Your task to perform on an android device: open the mobile data screen to see how much data has been used Image 0: 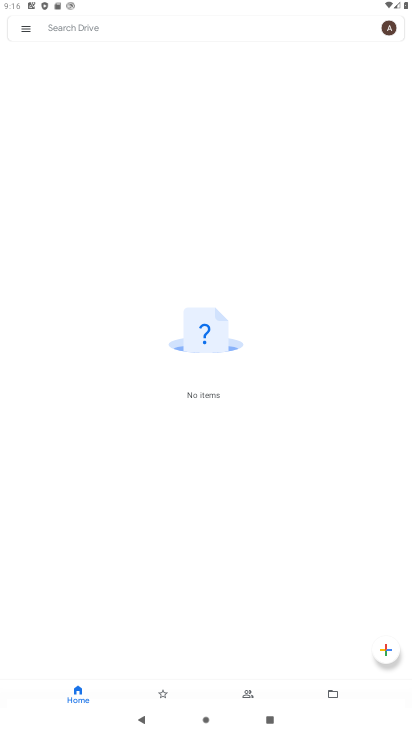
Step 0: press home button
Your task to perform on an android device: open the mobile data screen to see how much data has been used Image 1: 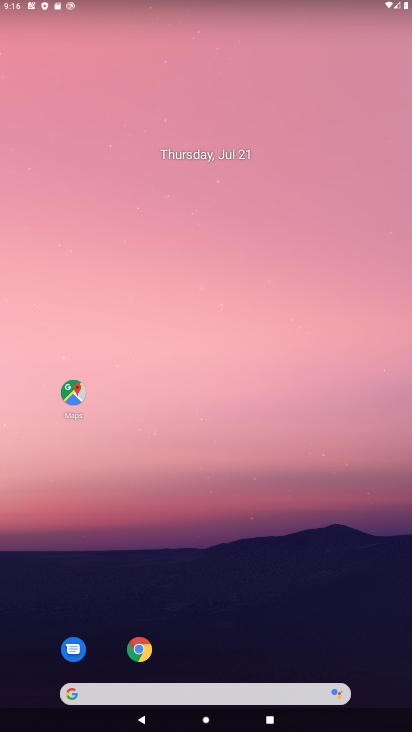
Step 1: drag from (244, 574) to (276, 87)
Your task to perform on an android device: open the mobile data screen to see how much data has been used Image 2: 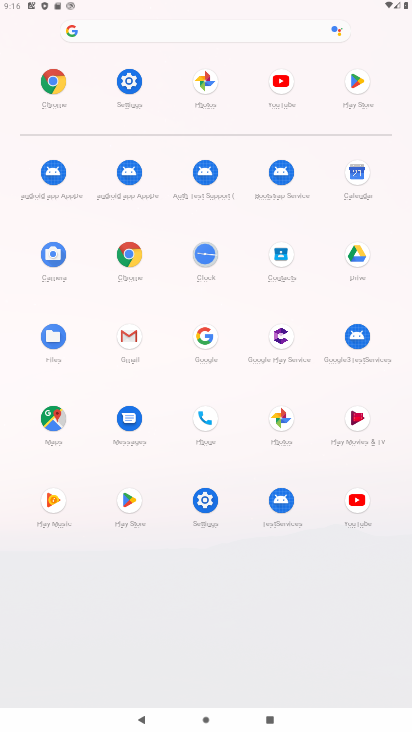
Step 2: click (203, 515)
Your task to perform on an android device: open the mobile data screen to see how much data has been used Image 3: 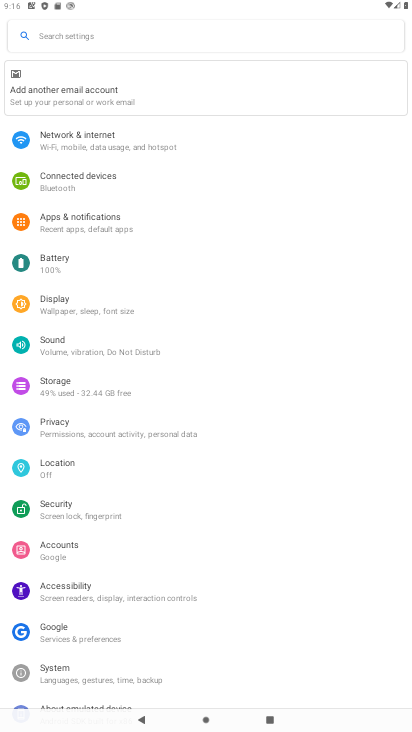
Step 3: click (99, 144)
Your task to perform on an android device: open the mobile data screen to see how much data has been used Image 4: 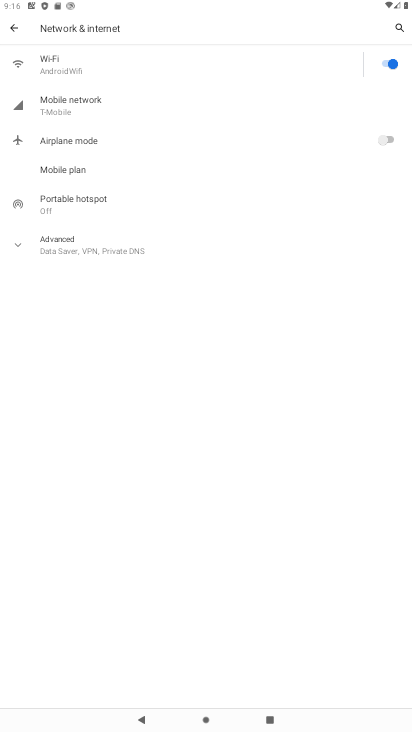
Step 4: click (96, 97)
Your task to perform on an android device: open the mobile data screen to see how much data has been used Image 5: 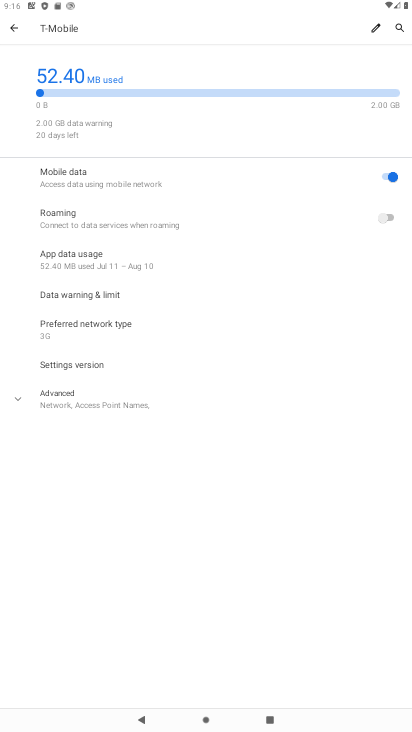
Step 5: click (149, 262)
Your task to perform on an android device: open the mobile data screen to see how much data has been used Image 6: 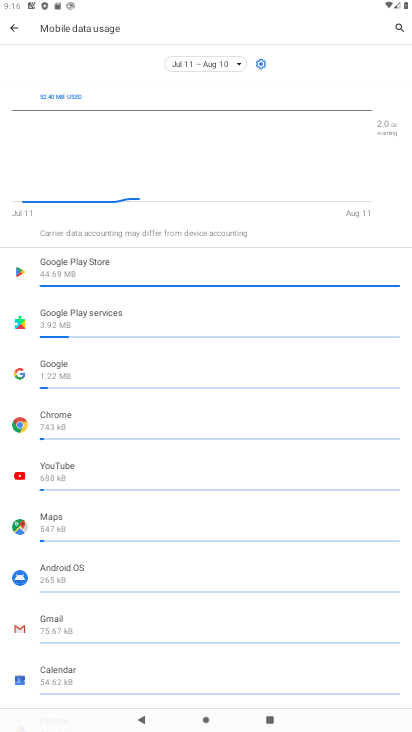
Step 6: task complete